Your task to perform on an android device: check out phone information Image 0: 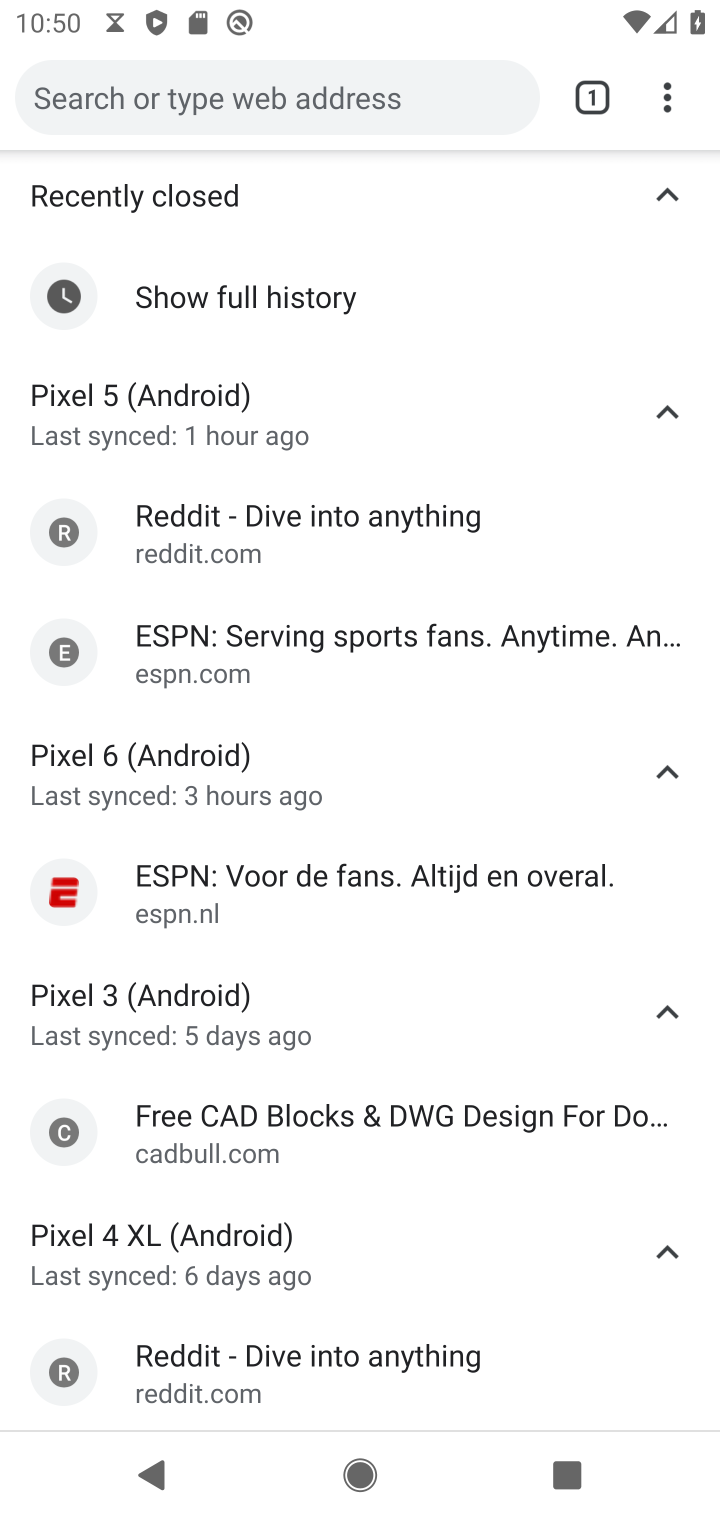
Step 0: click (659, 659)
Your task to perform on an android device: check out phone information Image 1: 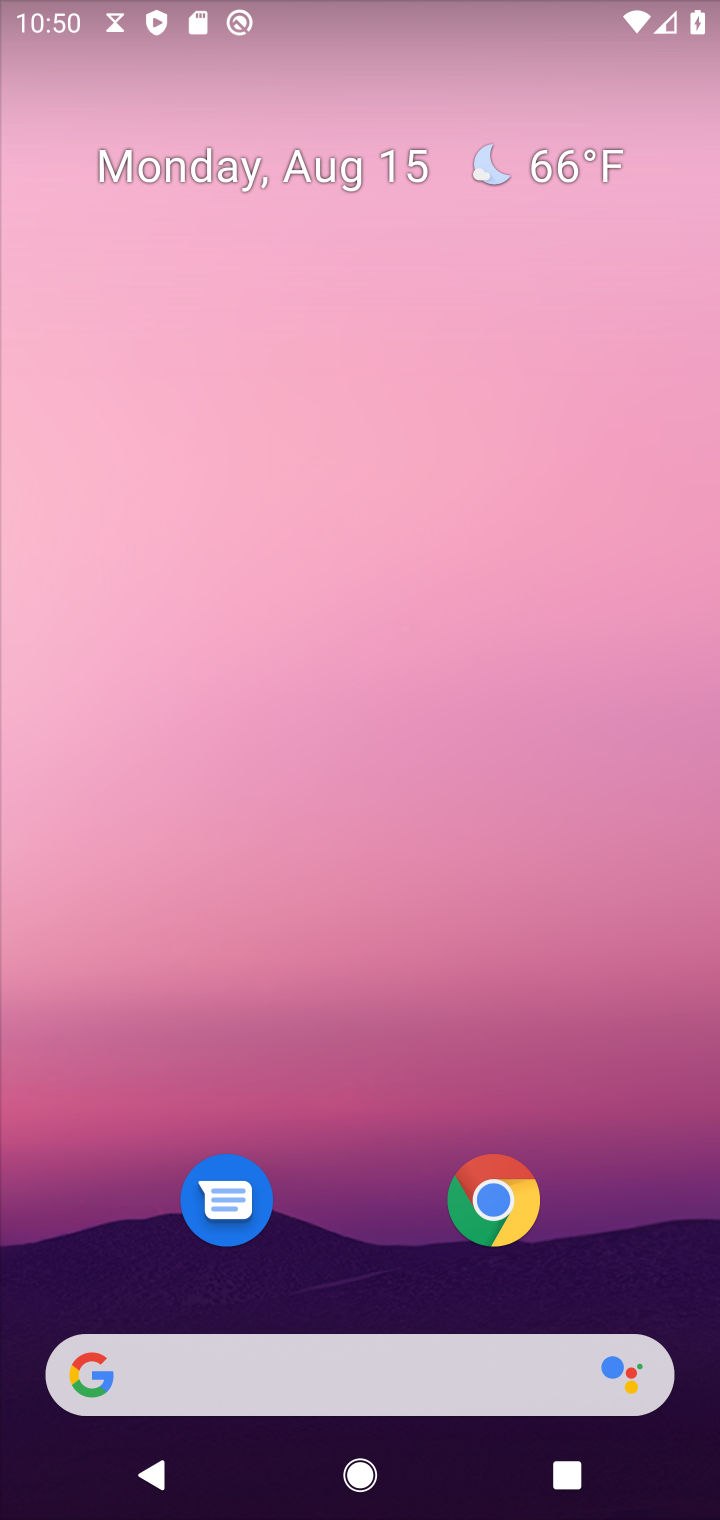
Step 1: drag from (319, 1293) to (356, 194)
Your task to perform on an android device: check out phone information Image 2: 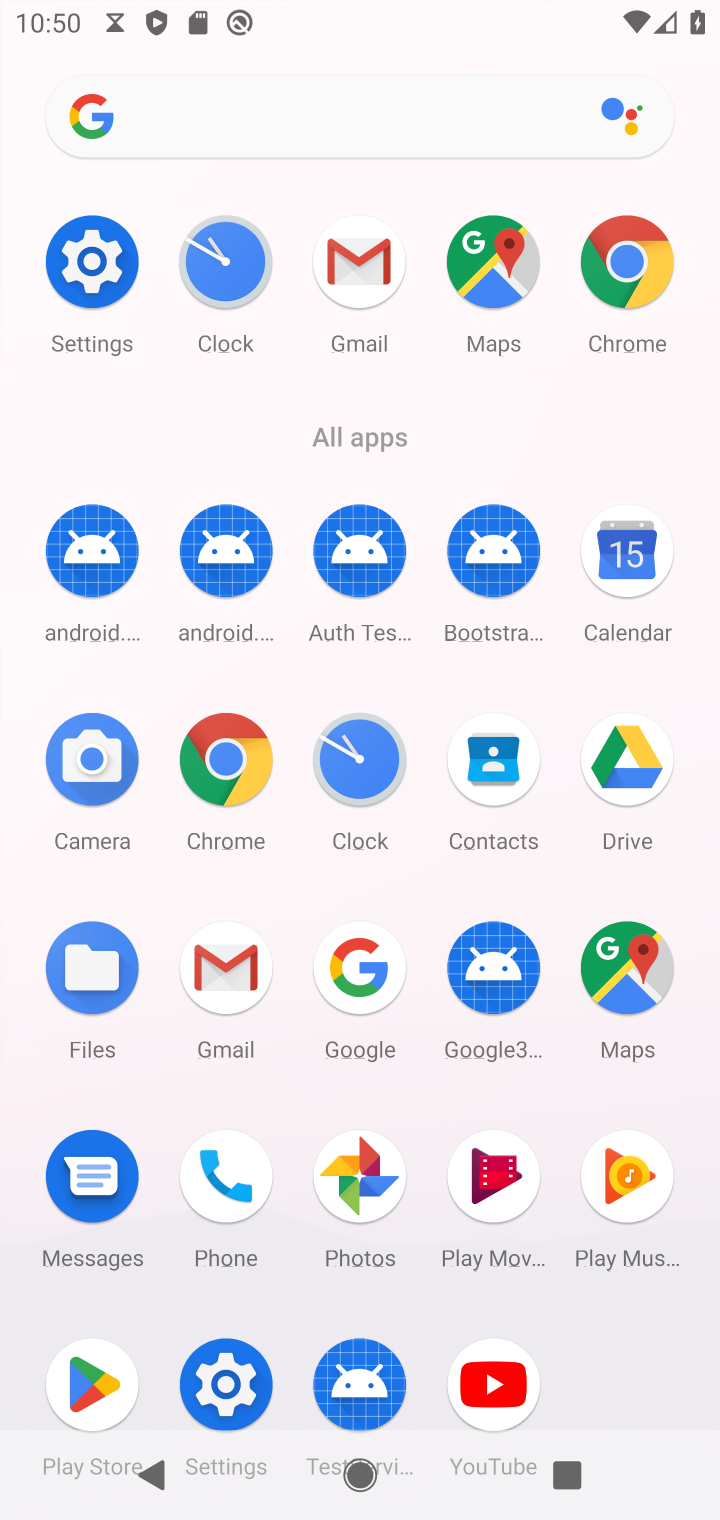
Step 2: click (211, 1348)
Your task to perform on an android device: check out phone information Image 3: 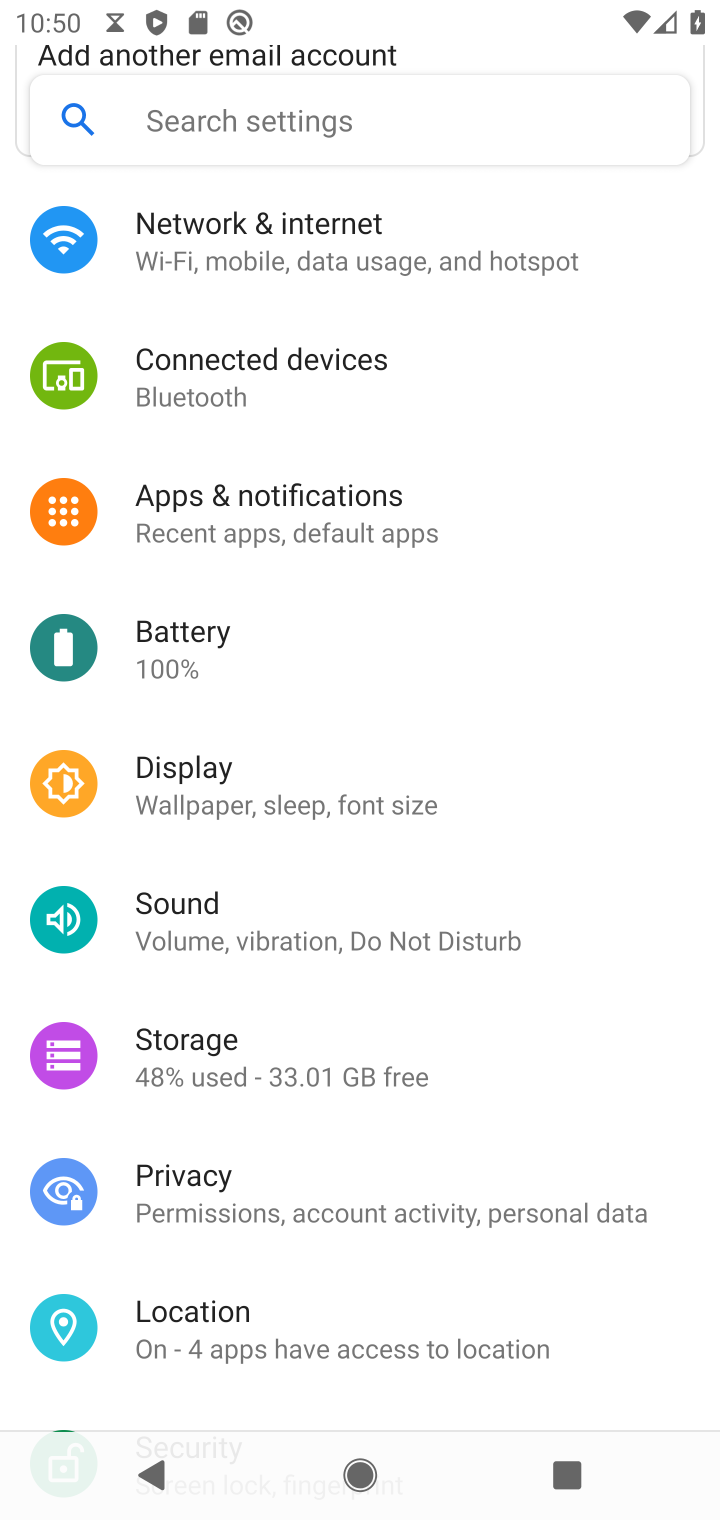
Step 3: drag from (396, 1219) to (479, 266)
Your task to perform on an android device: check out phone information Image 4: 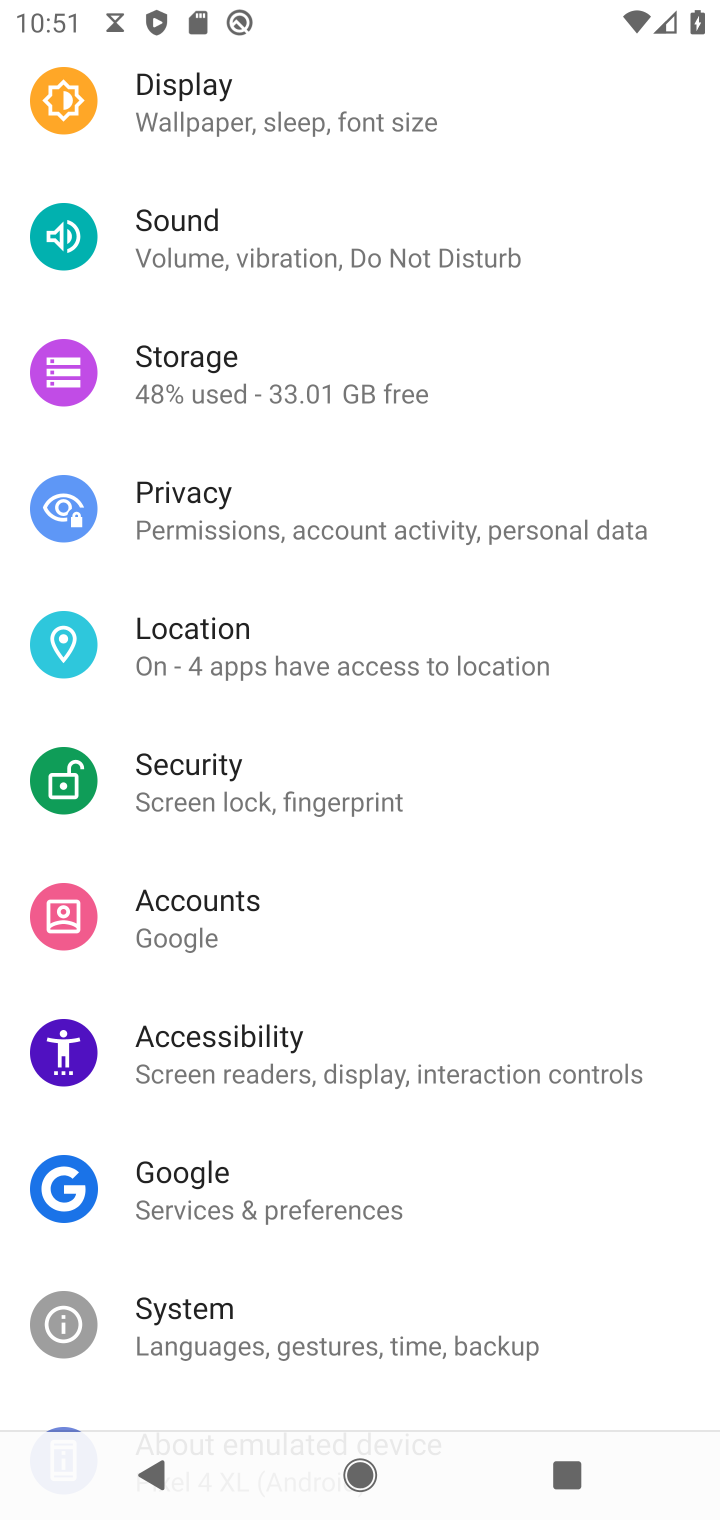
Step 4: drag from (387, 1176) to (424, 375)
Your task to perform on an android device: check out phone information Image 5: 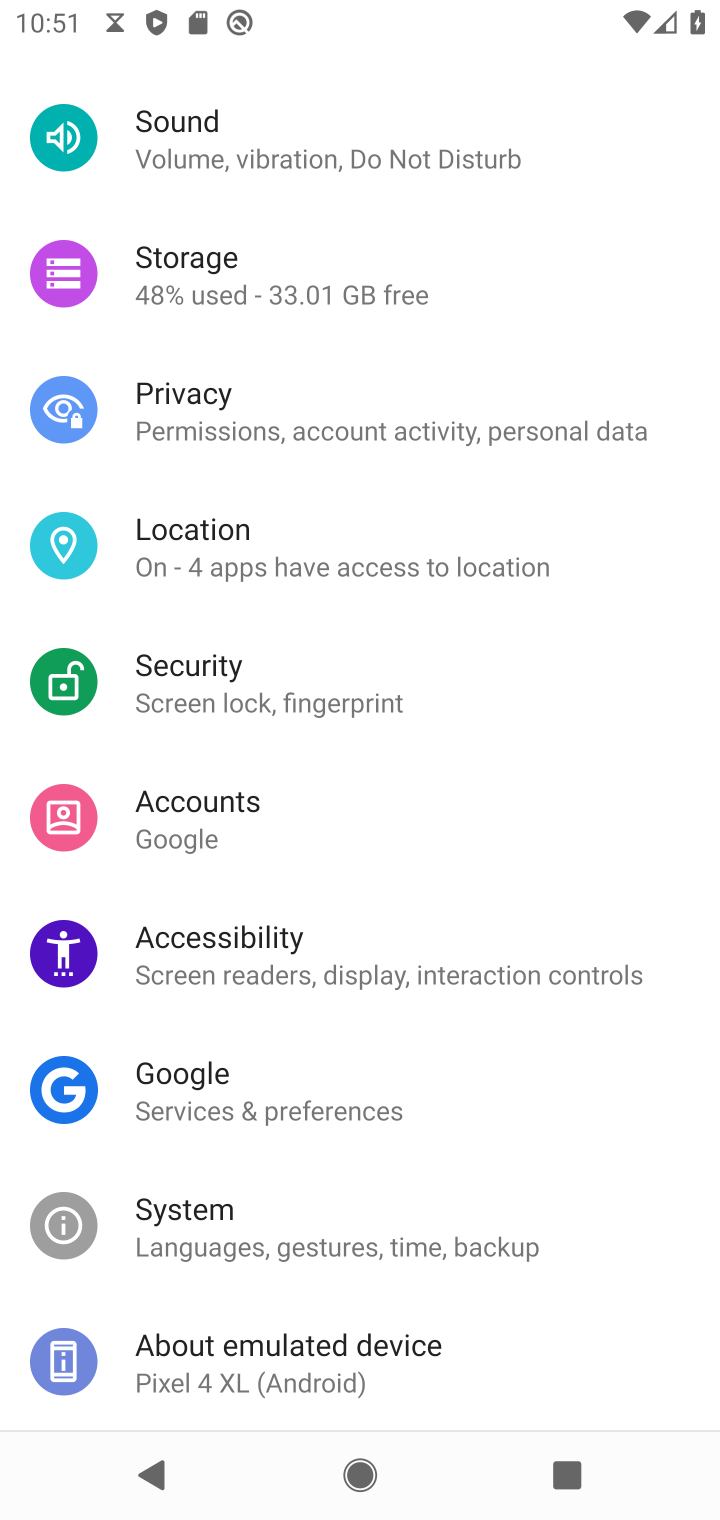
Step 5: drag from (245, 1275) to (280, 449)
Your task to perform on an android device: check out phone information Image 6: 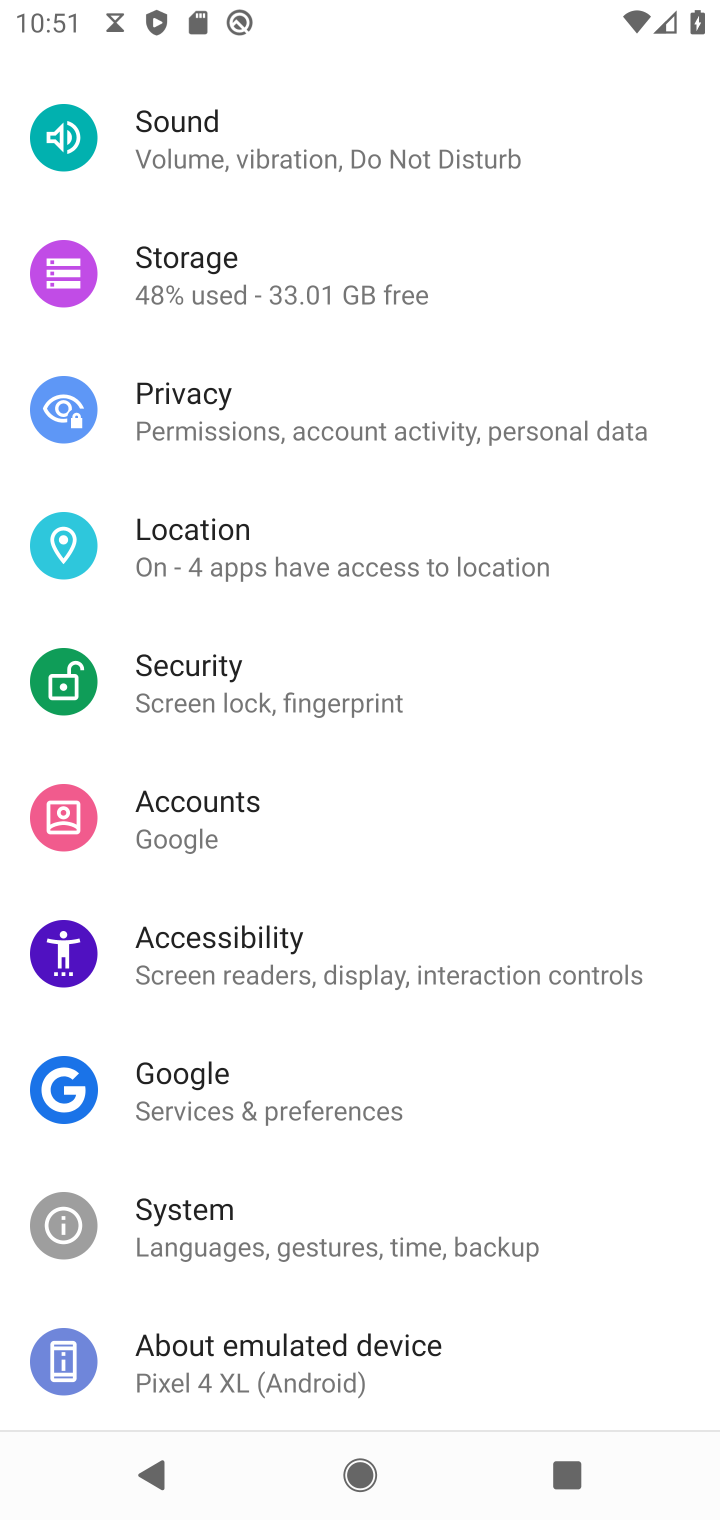
Step 6: click (325, 1352)
Your task to perform on an android device: check out phone information Image 7: 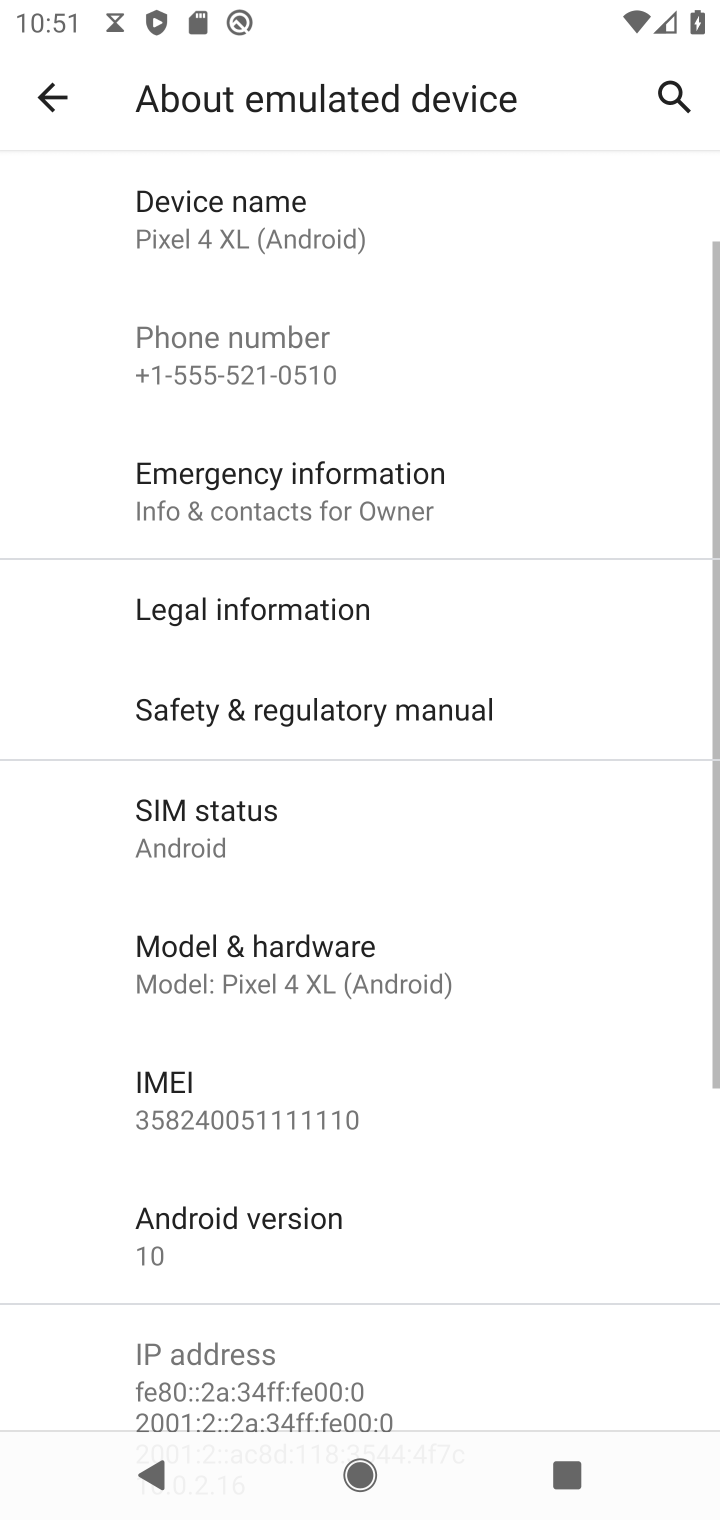
Step 7: task complete